Your task to perform on an android device: Go to CNN.com Image 0: 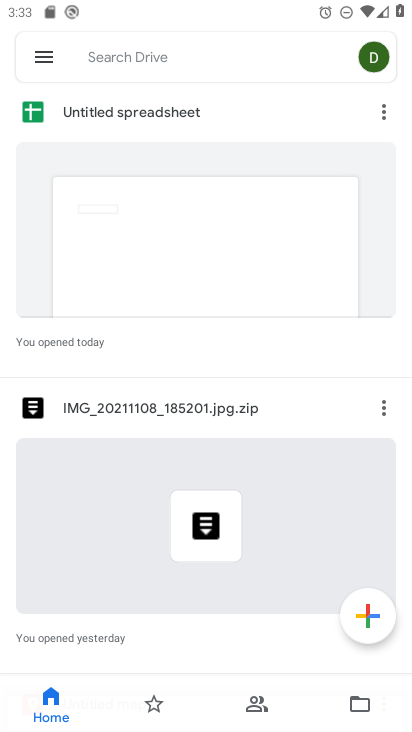
Step 0: press home button
Your task to perform on an android device: Go to CNN.com Image 1: 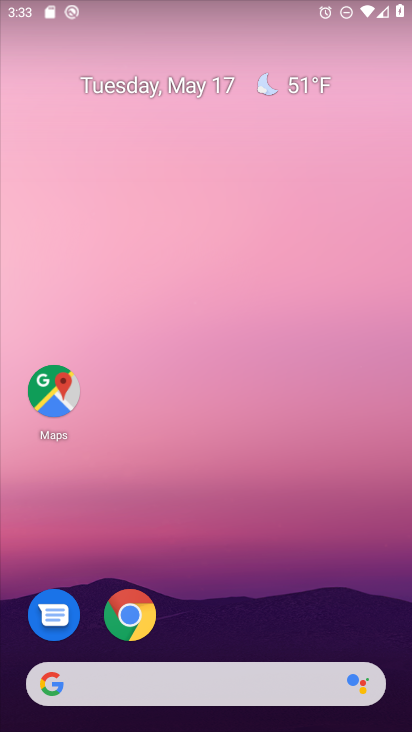
Step 1: click (128, 610)
Your task to perform on an android device: Go to CNN.com Image 2: 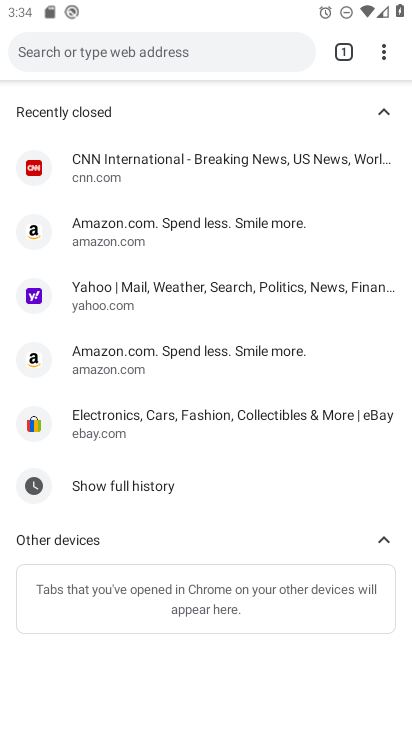
Step 2: click (339, 46)
Your task to perform on an android device: Go to CNN.com Image 3: 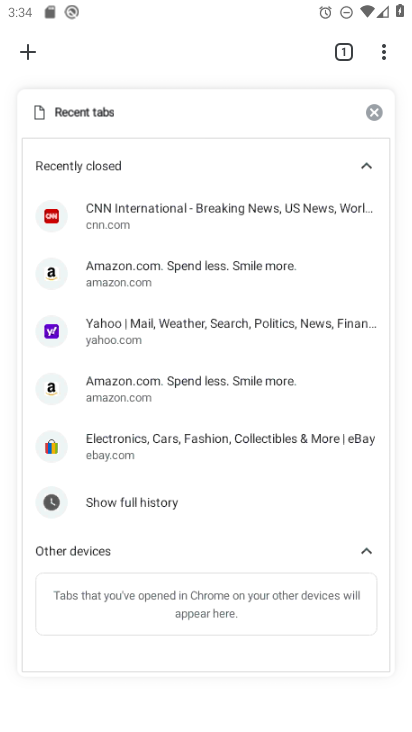
Step 3: click (375, 112)
Your task to perform on an android device: Go to CNN.com Image 4: 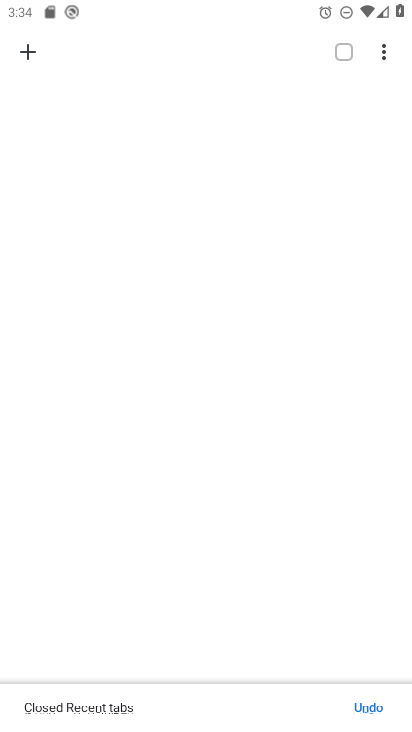
Step 4: click (28, 54)
Your task to perform on an android device: Go to CNN.com Image 5: 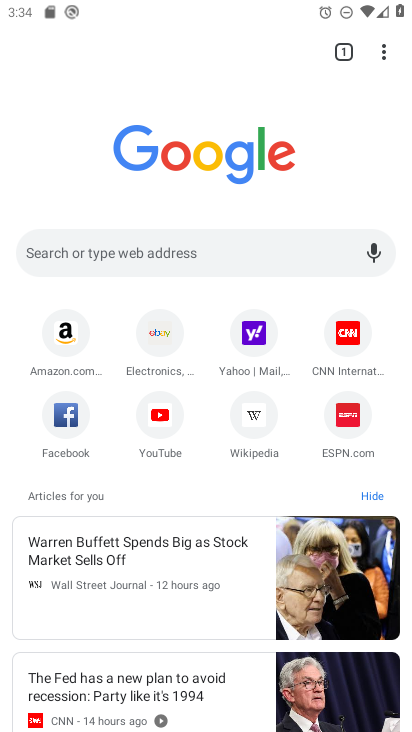
Step 5: drag from (219, 620) to (250, 303)
Your task to perform on an android device: Go to CNN.com Image 6: 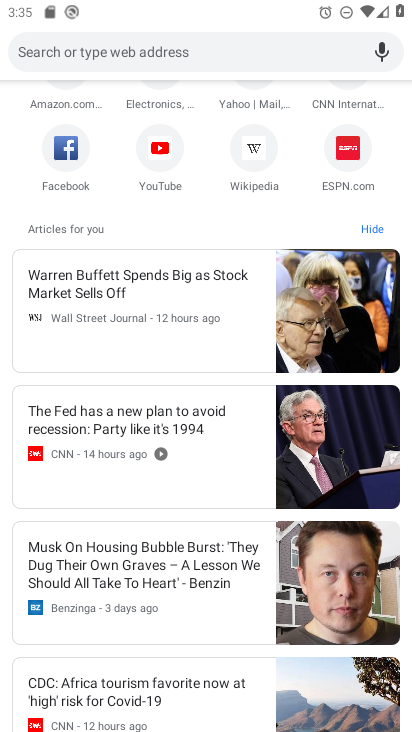
Step 6: drag from (188, 630) to (207, 277)
Your task to perform on an android device: Go to CNN.com Image 7: 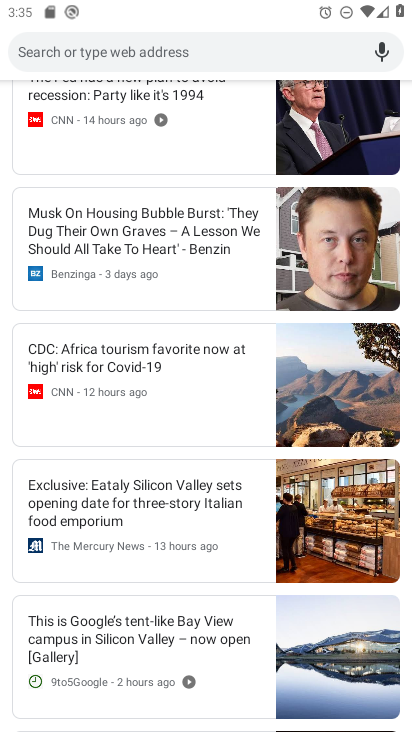
Step 7: click (162, 50)
Your task to perform on an android device: Go to CNN.com Image 8: 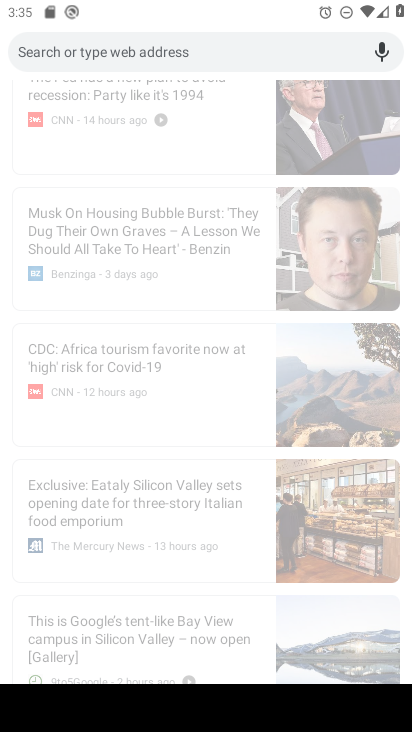
Step 8: type "cnn.com"
Your task to perform on an android device: Go to CNN.com Image 9: 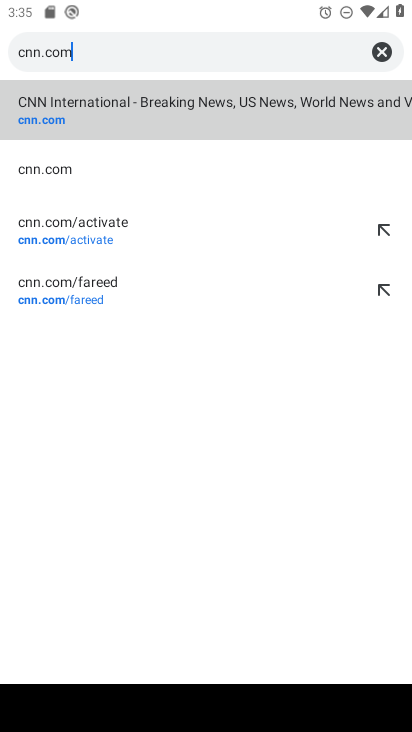
Step 9: click (40, 109)
Your task to perform on an android device: Go to CNN.com Image 10: 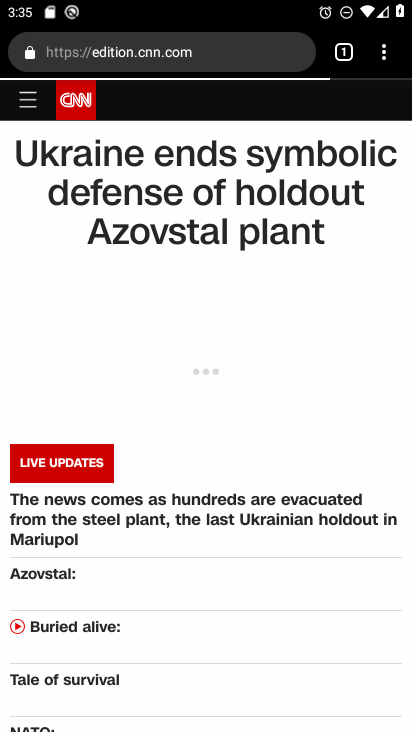
Step 10: task complete